Your task to perform on an android device: uninstall "Indeed Job Search" Image 0: 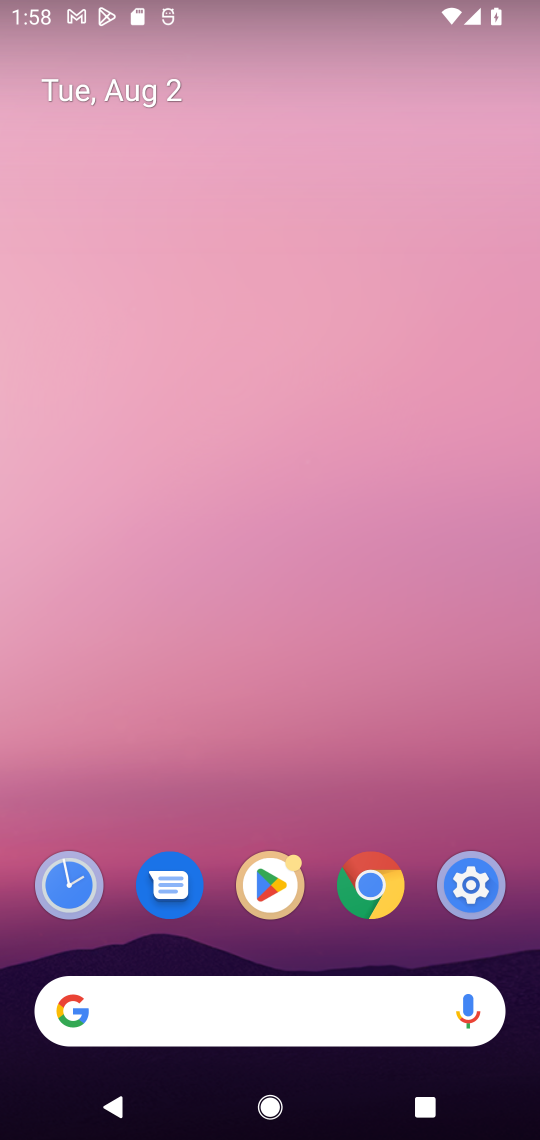
Step 0: task impossible